Your task to perform on an android device: open chrome privacy settings Image 0: 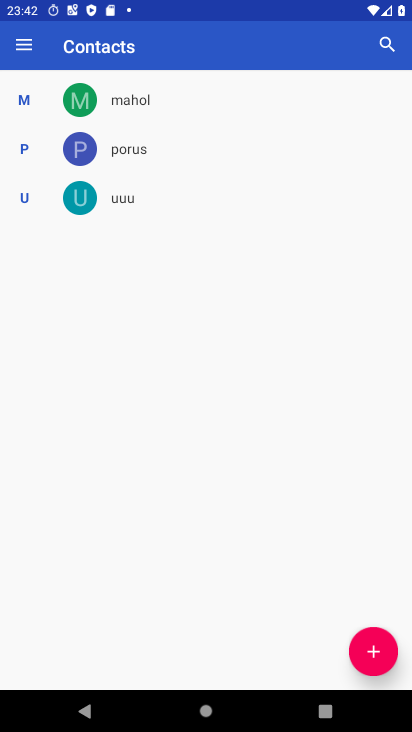
Step 0: press home button
Your task to perform on an android device: open chrome privacy settings Image 1: 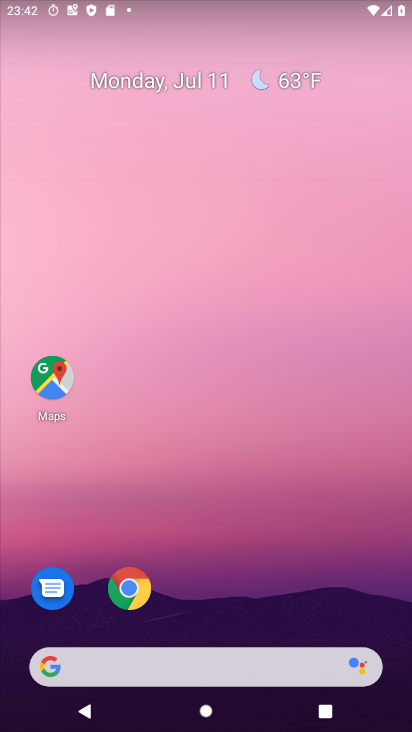
Step 1: drag from (236, 720) to (217, 219)
Your task to perform on an android device: open chrome privacy settings Image 2: 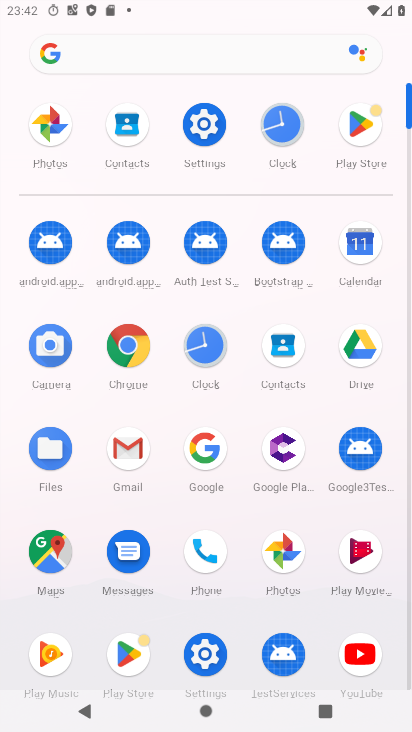
Step 2: click (130, 347)
Your task to perform on an android device: open chrome privacy settings Image 3: 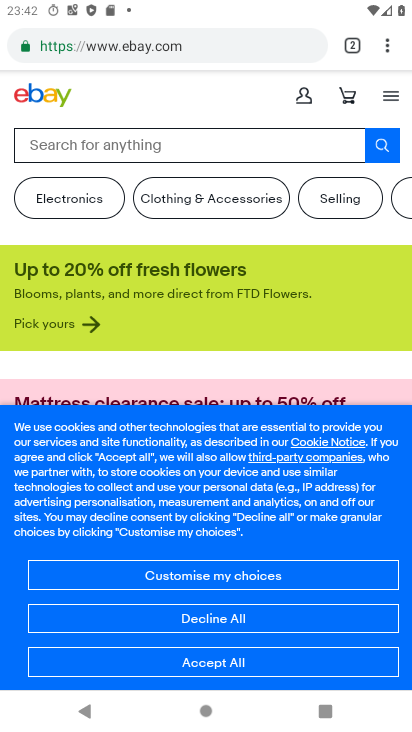
Step 3: click (386, 50)
Your task to perform on an android device: open chrome privacy settings Image 4: 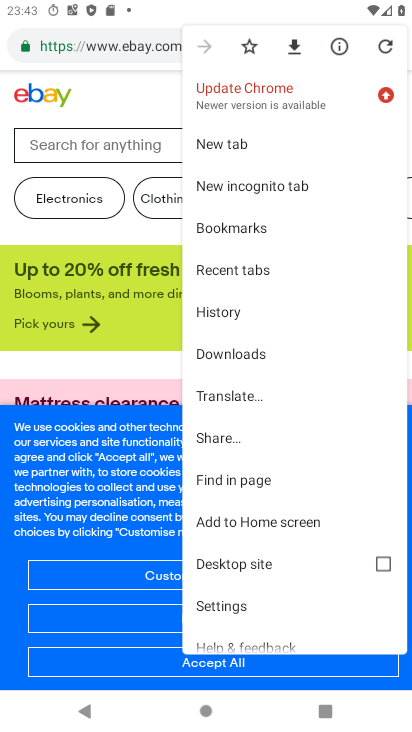
Step 4: click (219, 602)
Your task to perform on an android device: open chrome privacy settings Image 5: 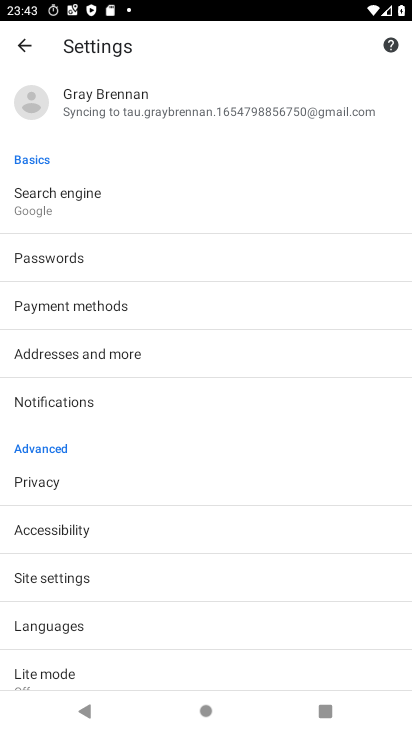
Step 5: click (28, 481)
Your task to perform on an android device: open chrome privacy settings Image 6: 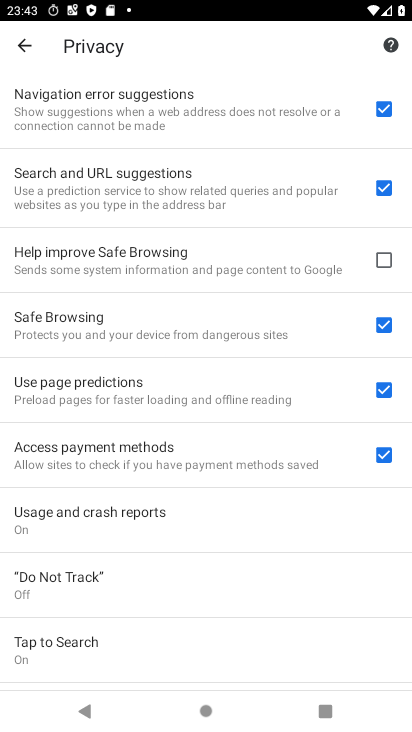
Step 6: task complete